Your task to perform on an android device: turn on improve location accuracy Image 0: 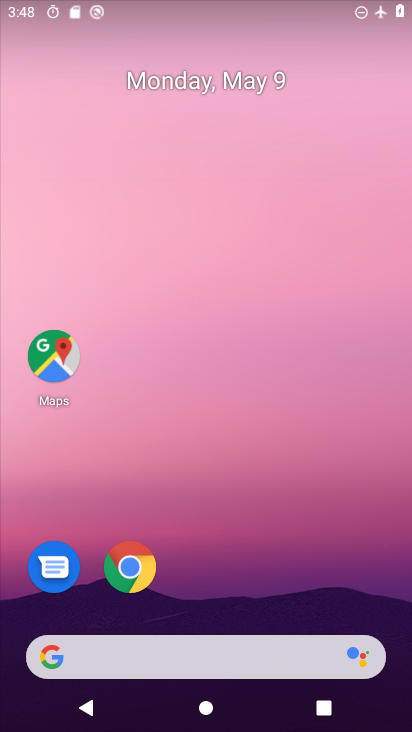
Step 0: drag from (286, 11) to (281, 615)
Your task to perform on an android device: turn on improve location accuracy Image 1: 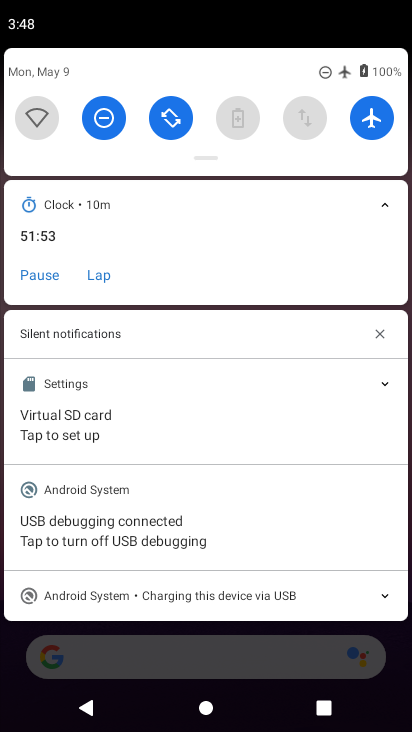
Step 1: click (381, 107)
Your task to perform on an android device: turn on improve location accuracy Image 2: 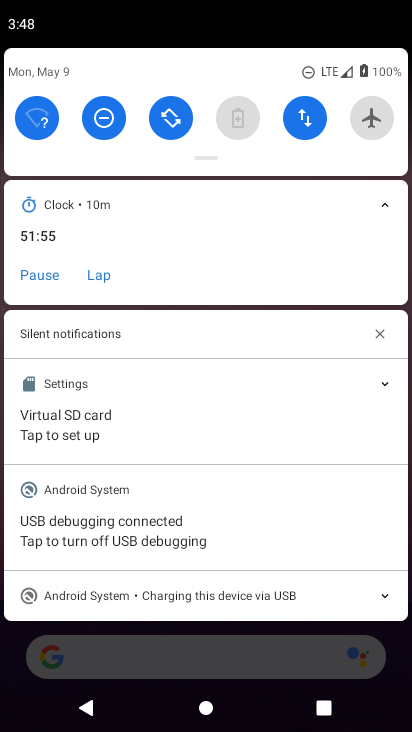
Step 2: drag from (268, 572) to (267, 191)
Your task to perform on an android device: turn on improve location accuracy Image 3: 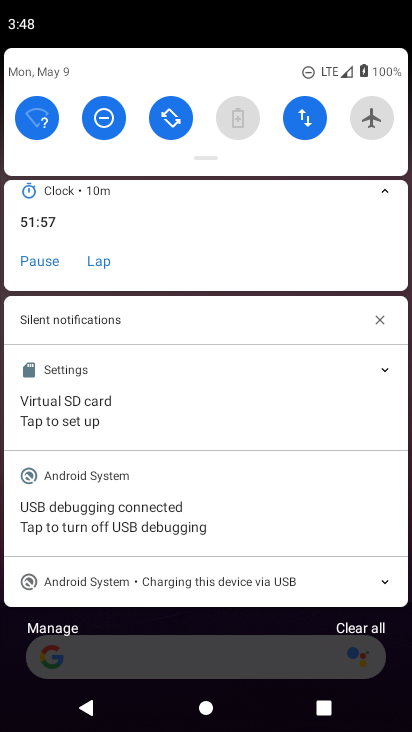
Step 3: drag from (248, 670) to (266, 152)
Your task to perform on an android device: turn on improve location accuracy Image 4: 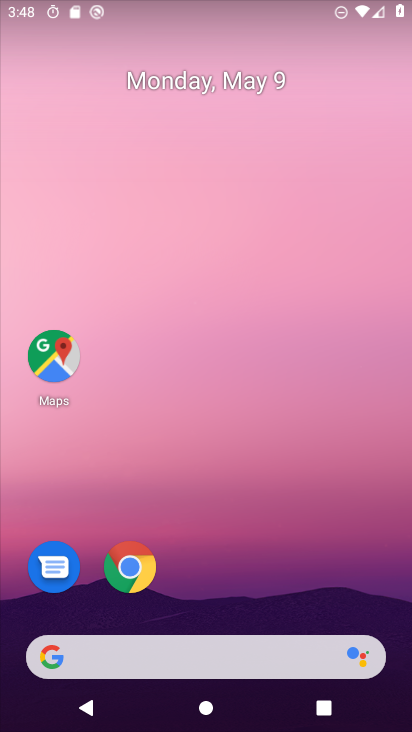
Step 4: drag from (232, 550) to (227, 132)
Your task to perform on an android device: turn on improve location accuracy Image 5: 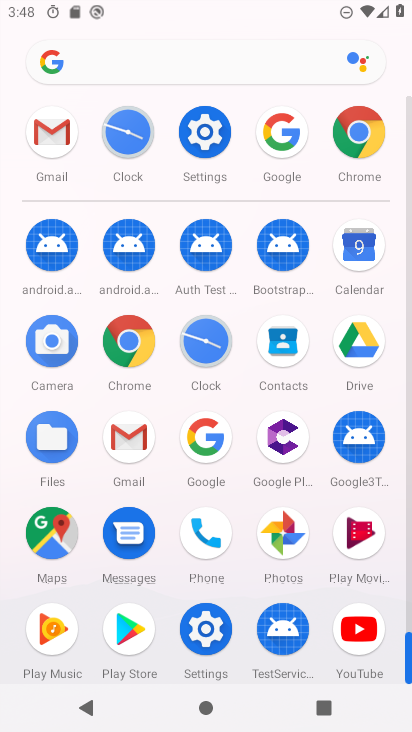
Step 5: click (200, 141)
Your task to perform on an android device: turn on improve location accuracy Image 6: 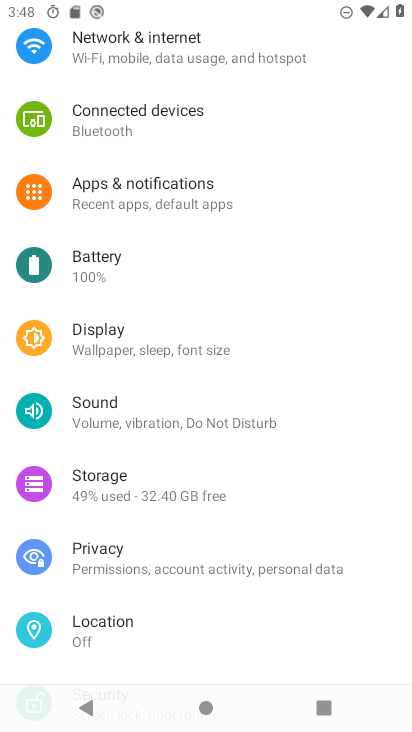
Step 6: click (158, 625)
Your task to perform on an android device: turn on improve location accuracy Image 7: 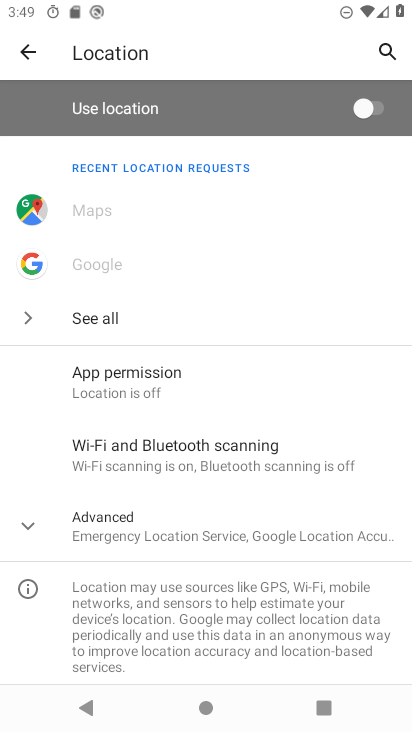
Step 7: click (224, 527)
Your task to perform on an android device: turn on improve location accuracy Image 8: 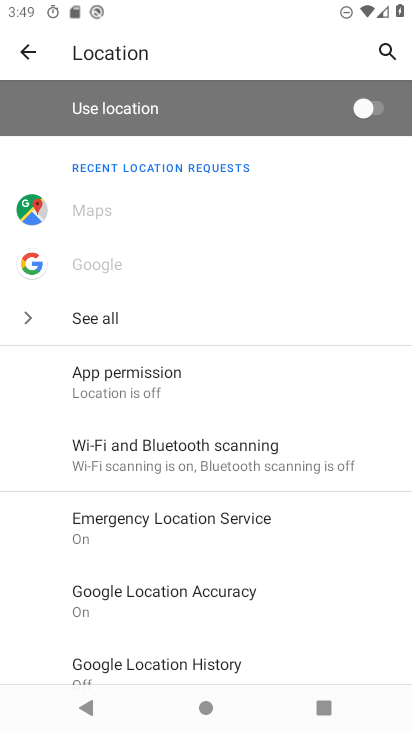
Step 8: drag from (299, 639) to (317, 383)
Your task to perform on an android device: turn on improve location accuracy Image 9: 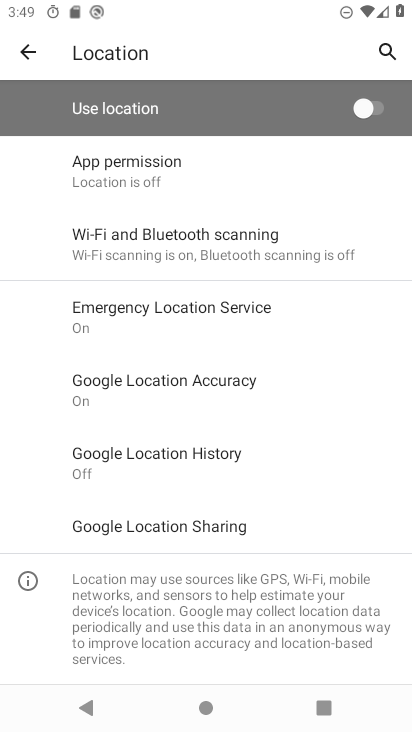
Step 9: click (215, 393)
Your task to perform on an android device: turn on improve location accuracy Image 10: 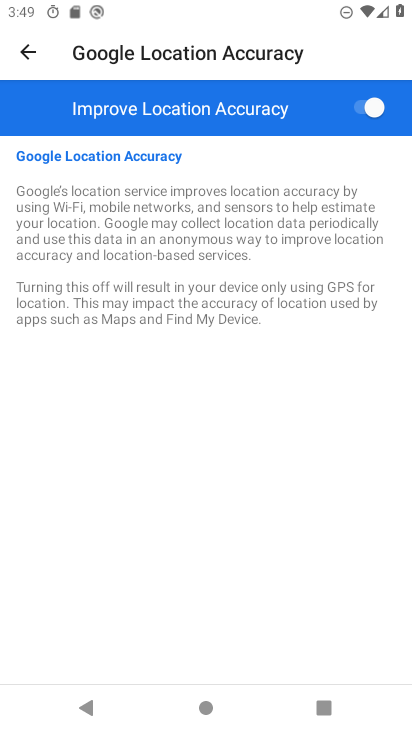
Step 10: task complete